Your task to perform on an android device: Open calendar and show me the first week of next month Image 0: 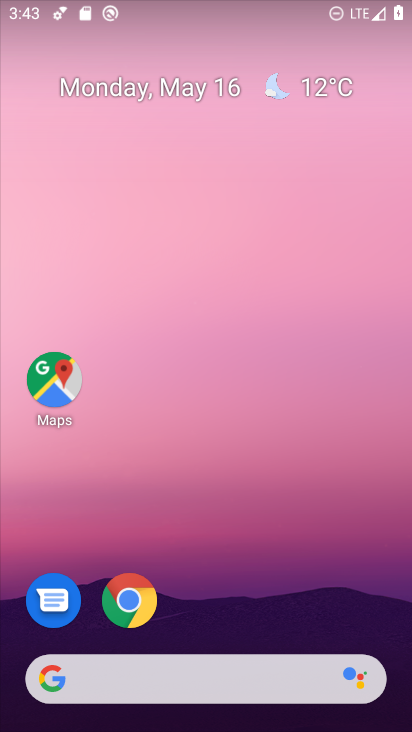
Step 0: drag from (280, 598) to (280, 546)
Your task to perform on an android device: Open calendar and show me the first week of next month Image 1: 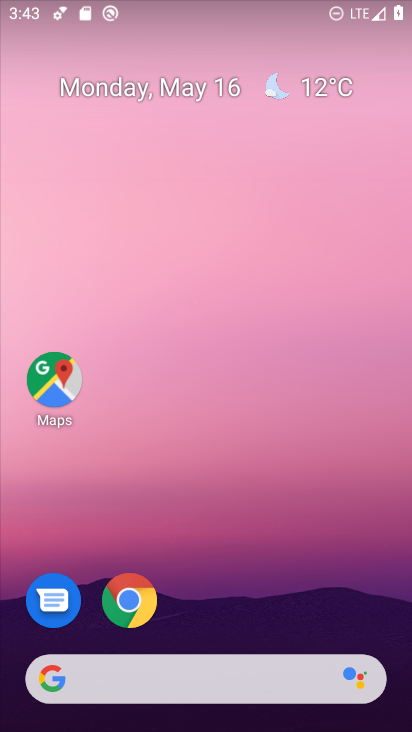
Step 1: drag from (280, 546) to (334, 67)
Your task to perform on an android device: Open calendar and show me the first week of next month Image 2: 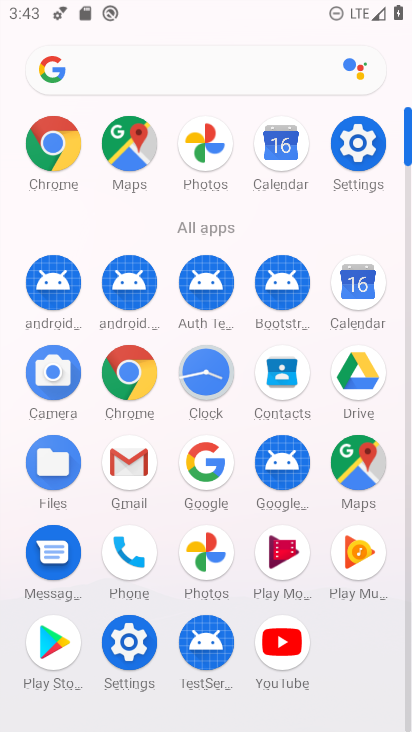
Step 2: click (365, 291)
Your task to perform on an android device: Open calendar and show me the first week of next month Image 3: 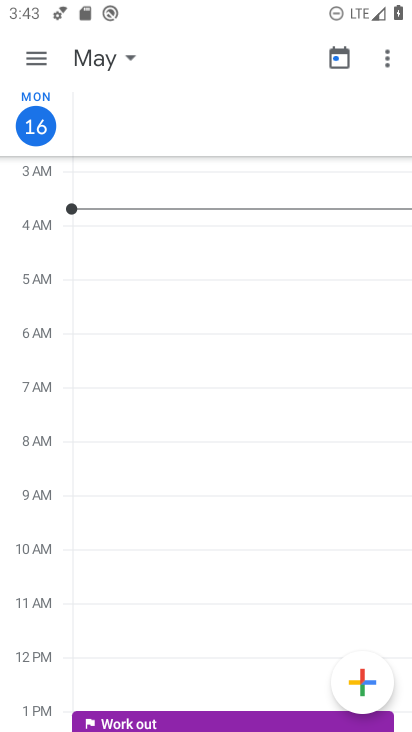
Step 3: click (96, 58)
Your task to perform on an android device: Open calendar and show me the first week of next month Image 4: 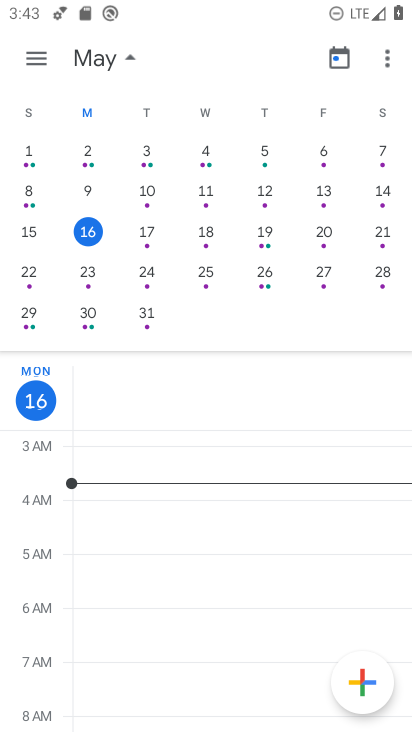
Step 4: drag from (357, 209) to (1, 227)
Your task to perform on an android device: Open calendar and show me the first week of next month Image 5: 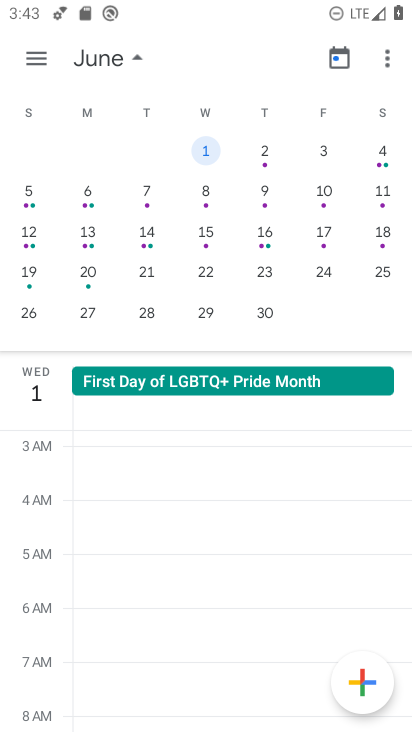
Step 5: click (262, 150)
Your task to perform on an android device: Open calendar and show me the first week of next month Image 6: 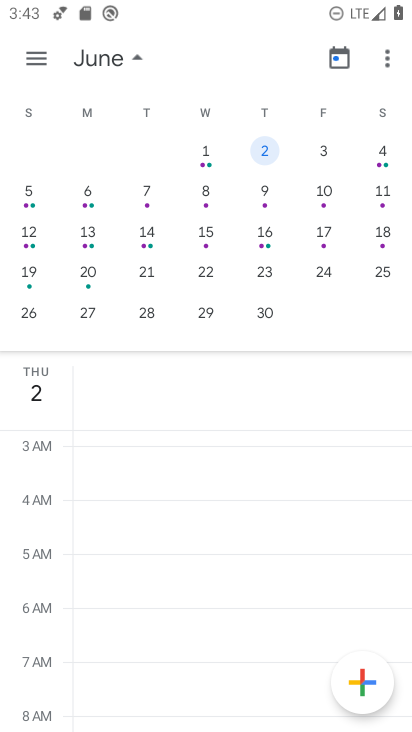
Step 6: task complete